Your task to perform on an android device: Open the Play Movies app and select the watchlist tab. Image 0: 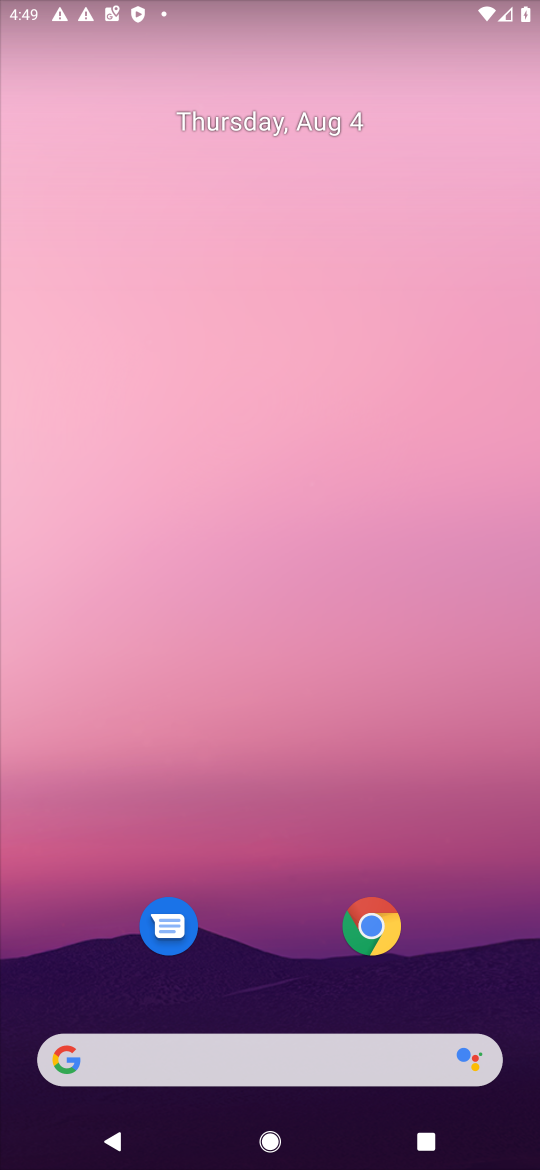
Step 0: press home button
Your task to perform on an android device: Open the Play Movies app and select the watchlist tab. Image 1: 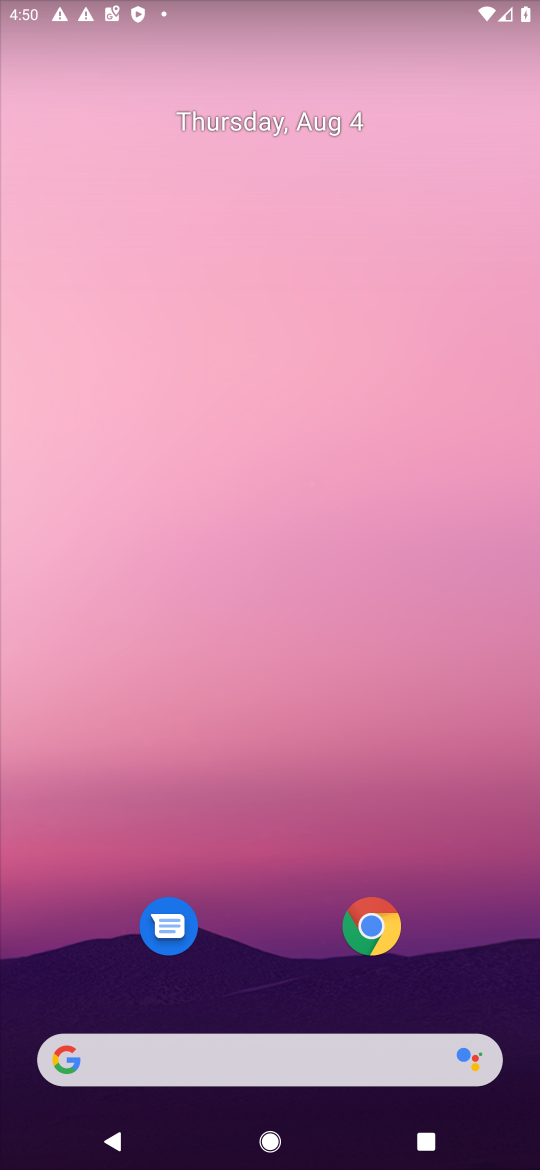
Step 1: drag from (311, 558) to (383, 203)
Your task to perform on an android device: Open the Play Movies app and select the watchlist tab. Image 2: 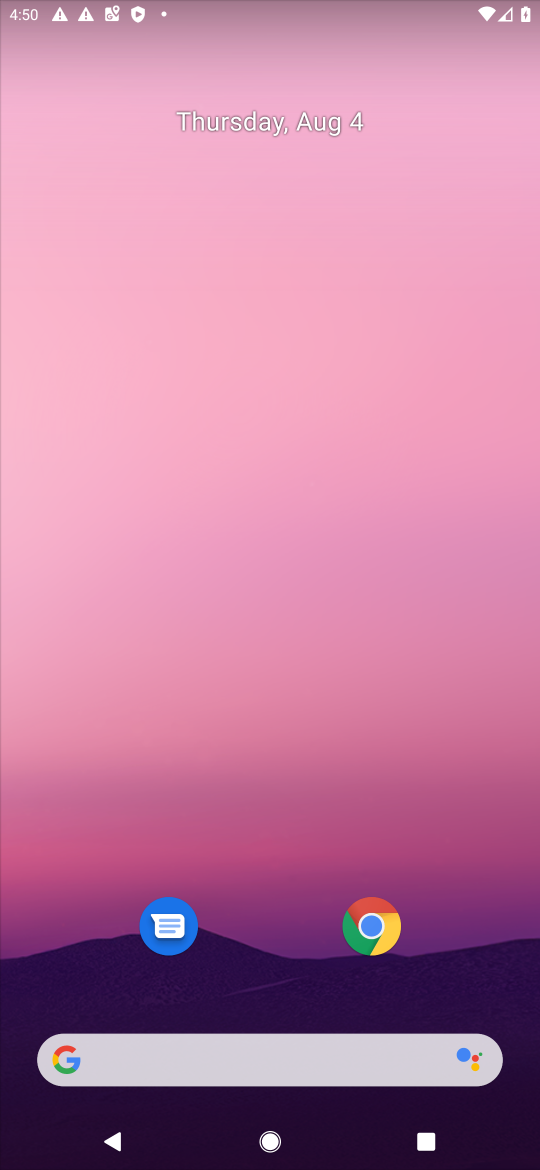
Step 2: drag from (290, 894) to (425, 3)
Your task to perform on an android device: Open the Play Movies app and select the watchlist tab. Image 3: 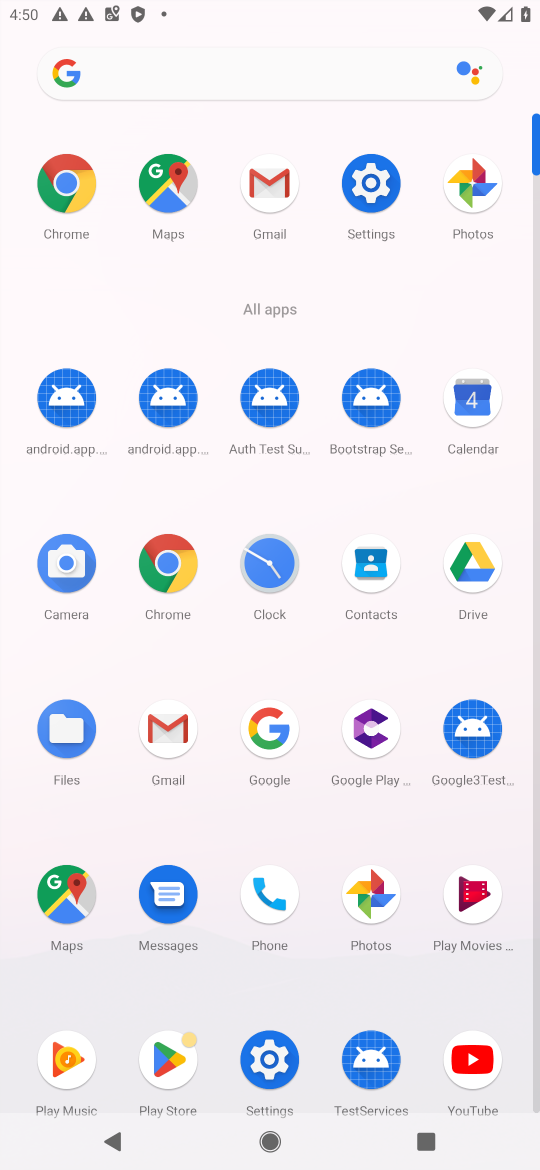
Step 3: click (465, 915)
Your task to perform on an android device: Open the Play Movies app and select the watchlist tab. Image 4: 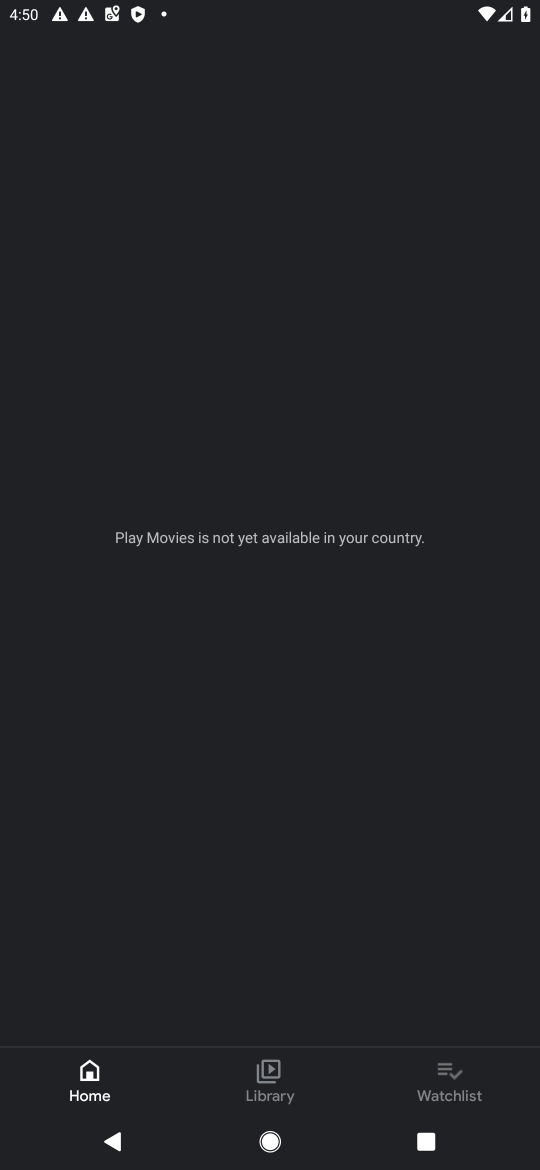
Step 4: click (437, 1082)
Your task to perform on an android device: Open the Play Movies app and select the watchlist tab. Image 5: 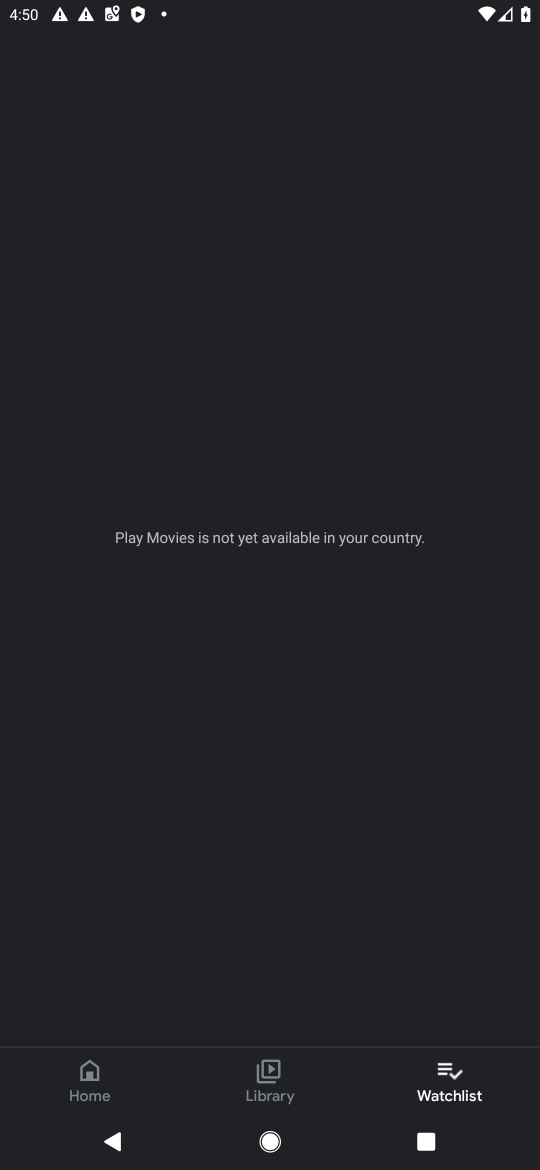
Step 5: task complete